Your task to perform on an android device: turn off wifi Image 0: 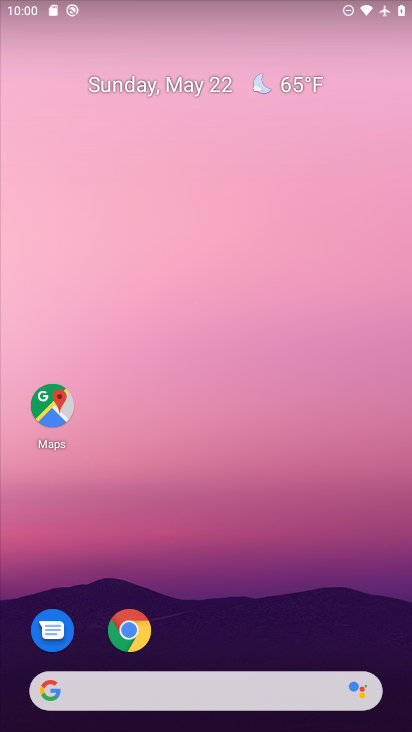
Step 0: press home button
Your task to perform on an android device: turn off wifi Image 1: 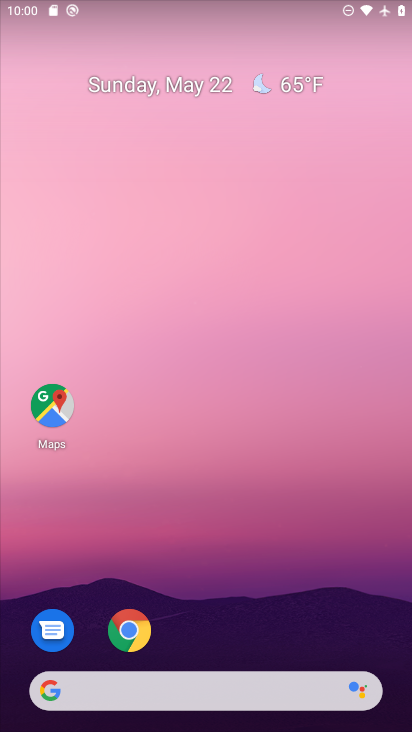
Step 1: drag from (174, 696) to (333, 146)
Your task to perform on an android device: turn off wifi Image 2: 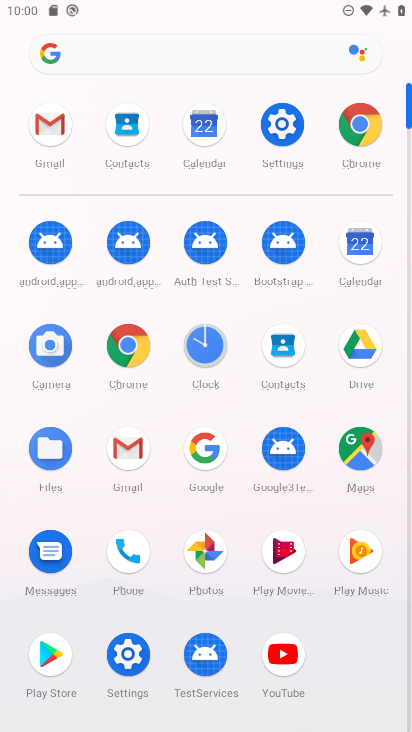
Step 2: click (290, 131)
Your task to perform on an android device: turn off wifi Image 3: 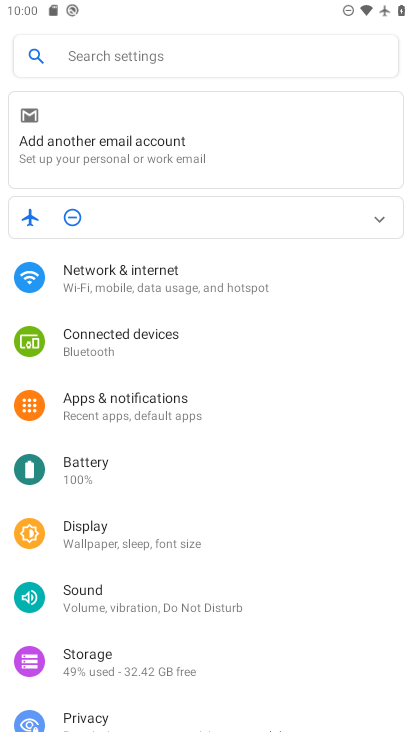
Step 3: click (150, 268)
Your task to perform on an android device: turn off wifi Image 4: 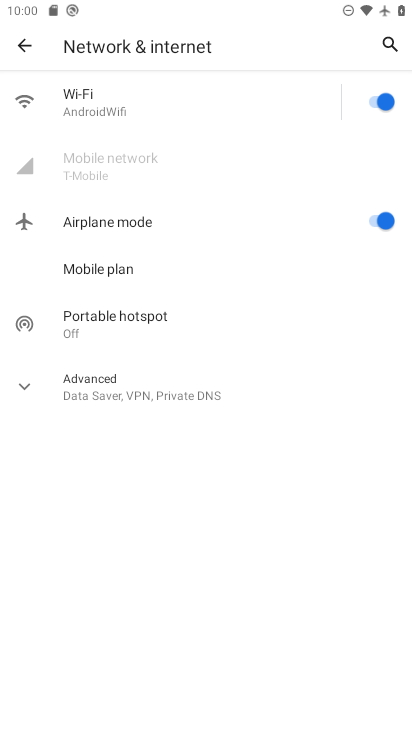
Step 4: click (372, 98)
Your task to perform on an android device: turn off wifi Image 5: 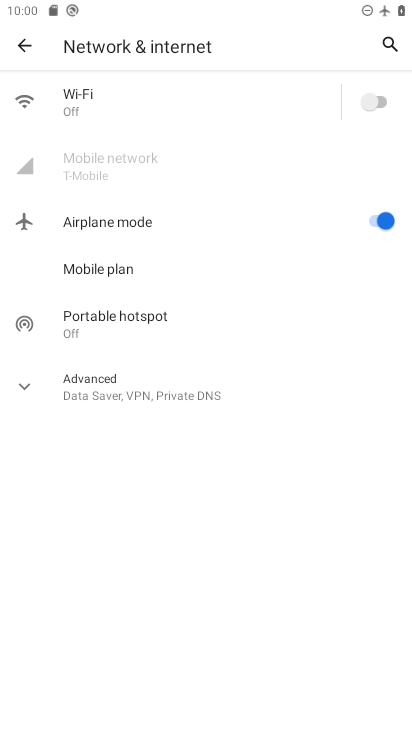
Step 5: task complete